Your task to perform on an android device: change your default location settings in chrome Image 0: 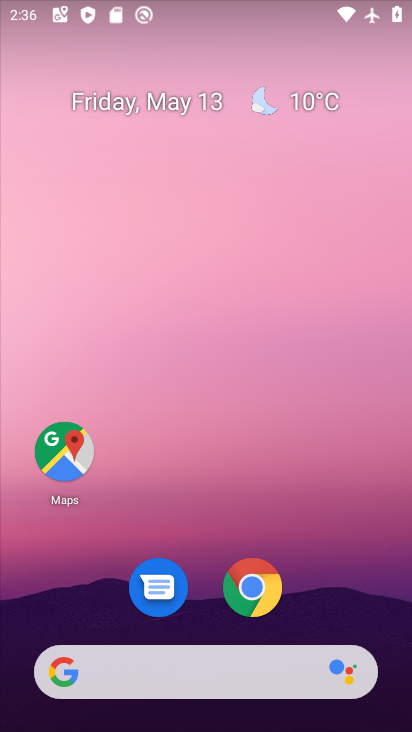
Step 0: click (243, 590)
Your task to perform on an android device: change your default location settings in chrome Image 1: 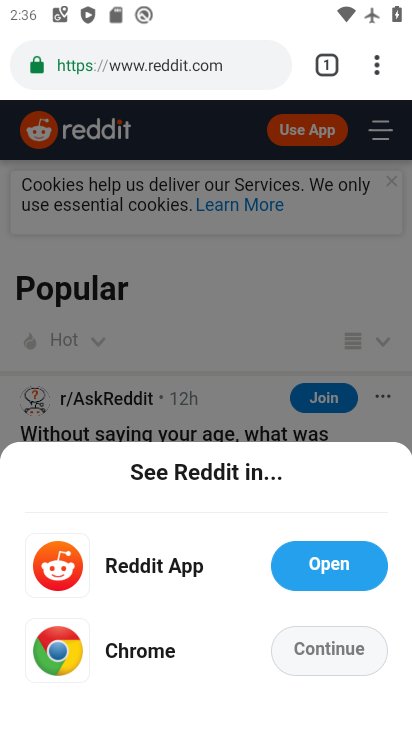
Step 1: click (374, 57)
Your task to perform on an android device: change your default location settings in chrome Image 2: 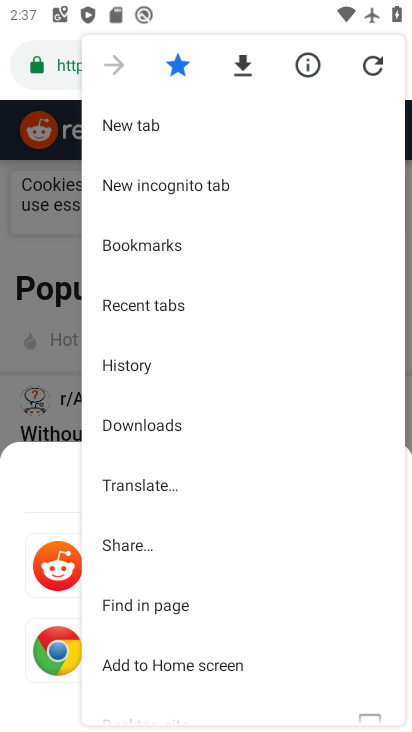
Step 2: drag from (194, 631) to (248, 226)
Your task to perform on an android device: change your default location settings in chrome Image 3: 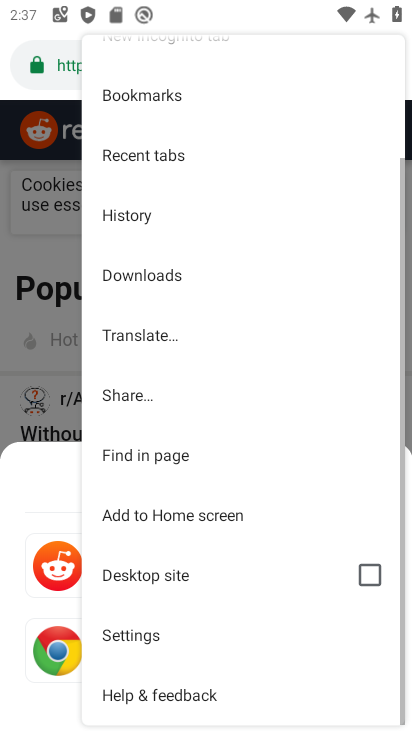
Step 3: click (132, 627)
Your task to perform on an android device: change your default location settings in chrome Image 4: 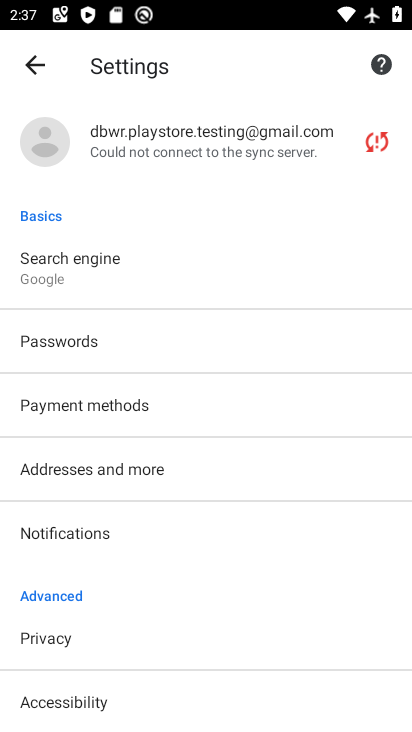
Step 4: drag from (85, 656) to (150, 339)
Your task to perform on an android device: change your default location settings in chrome Image 5: 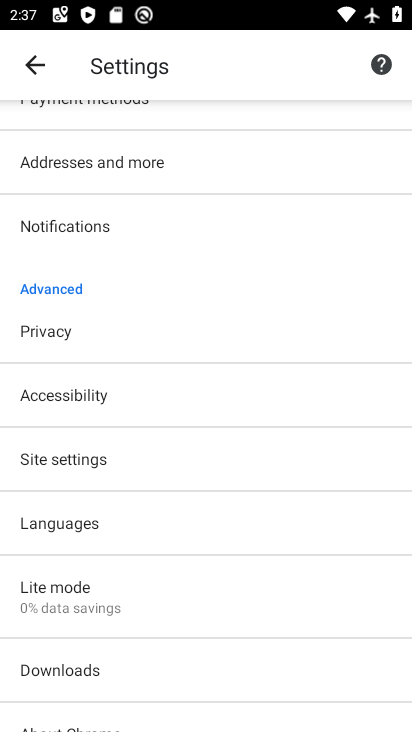
Step 5: click (94, 466)
Your task to perform on an android device: change your default location settings in chrome Image 6: 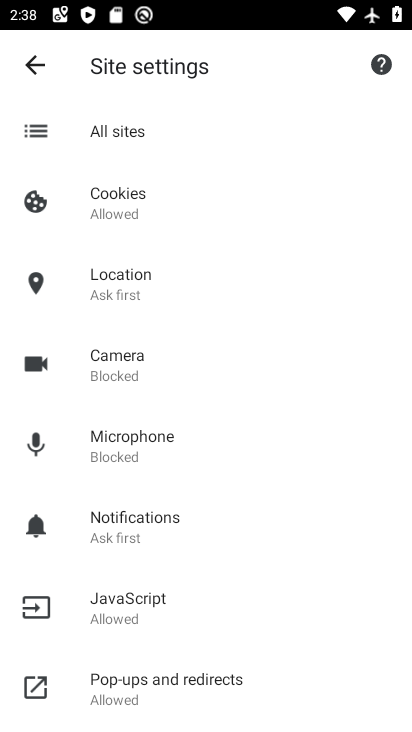
Step 6: click (88, 275)
Your task to perform on an android device: change your default location settings in chrome Image 7: 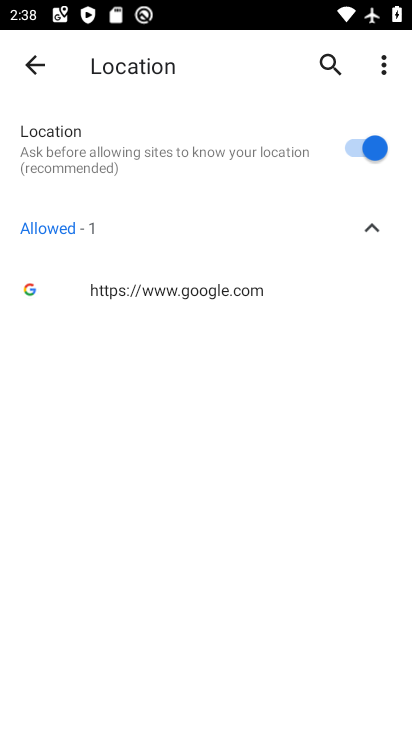
Step 7: click (364, 149)
Your task to perform on an android device: change your default location settings in chrome Image 8: 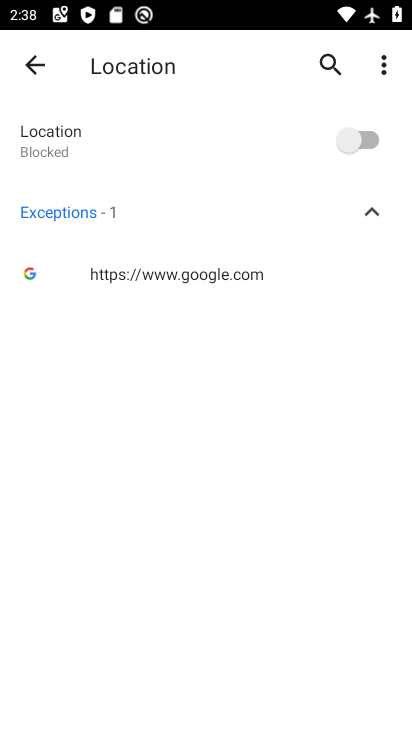
Step 8: task complete